Your task to perform on an android device: change your default location settings in chrome Image 0: 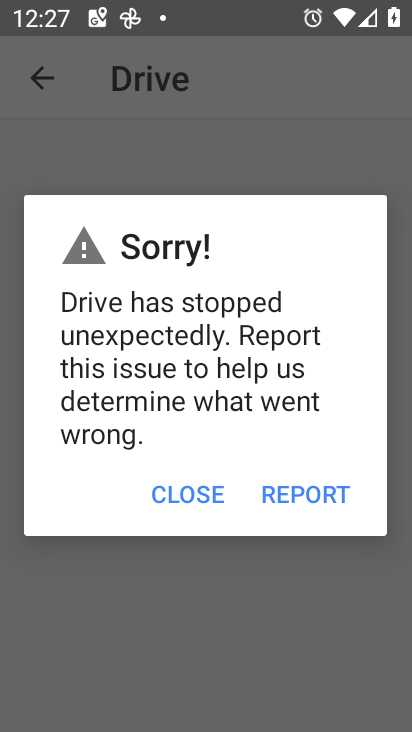
Step 0: press home button
Your task to perform on an android device: change your default location settings in chrome Image 1: 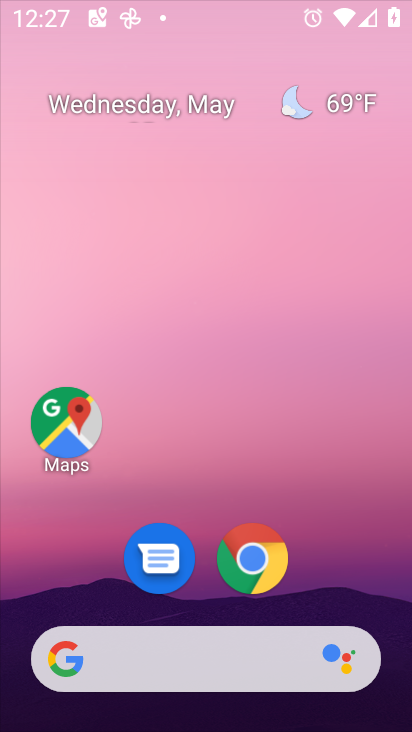
Step 1: drag from (385, 670) to (285, 71)
Your task to perform on an android device: change your default location settings in chrome Image 2: 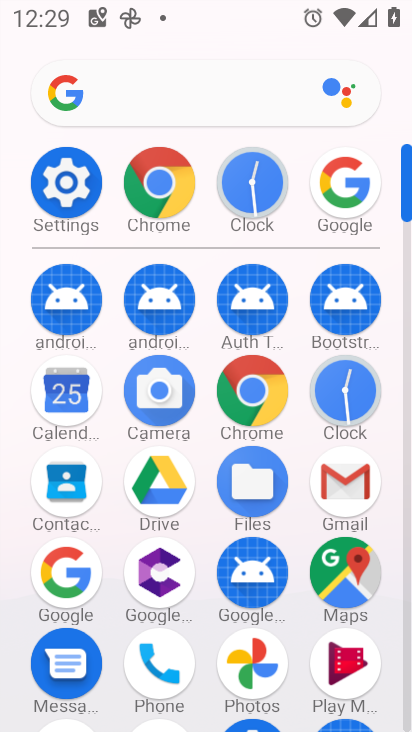
Step 2: click (261, 385)
Your task to perform on an android device: change your default location settings in chrome Image 3: 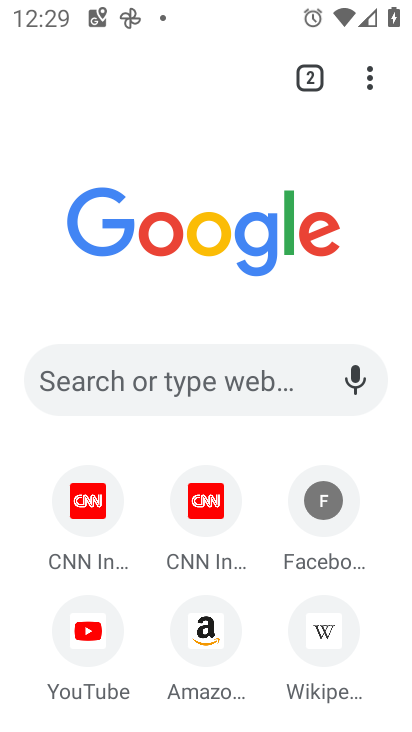
Step 3: click (372, 78)
Your task to perform on an android device: change your default location settings in chrome Image 4: 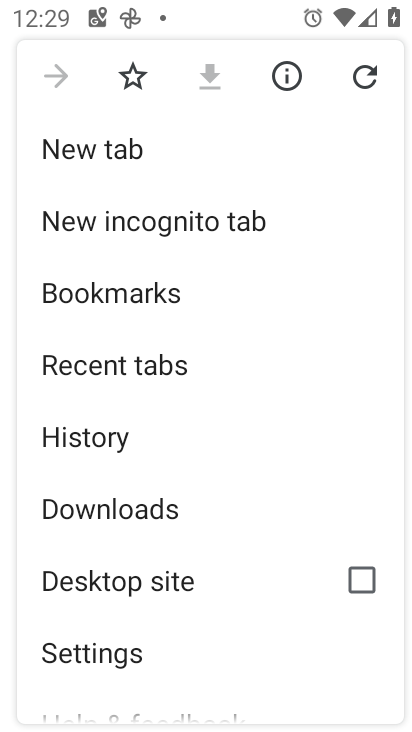
Step 4: click (149, 651)
Your task to perform on an android device: change your default location settings in chrome Image 5: 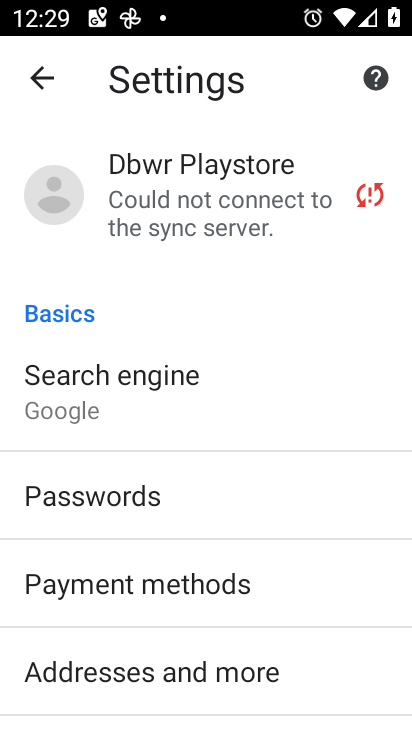
Step 5: click (164, 386)
Your task to perform on an android device: change your default location settings in chrome Image 6: 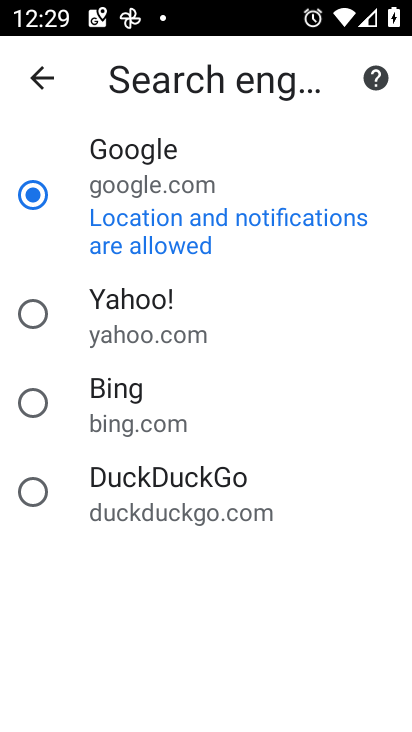
Step 6: click (132, 397)
Your task to perform on an android device: change your default location settings in chrome Image 7: 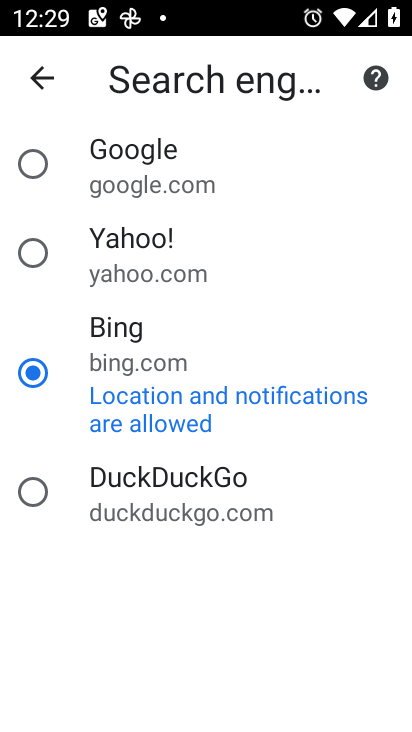
Step 7: task complete